Your task to perform on an android device: Toggle the flashlight Image 0: 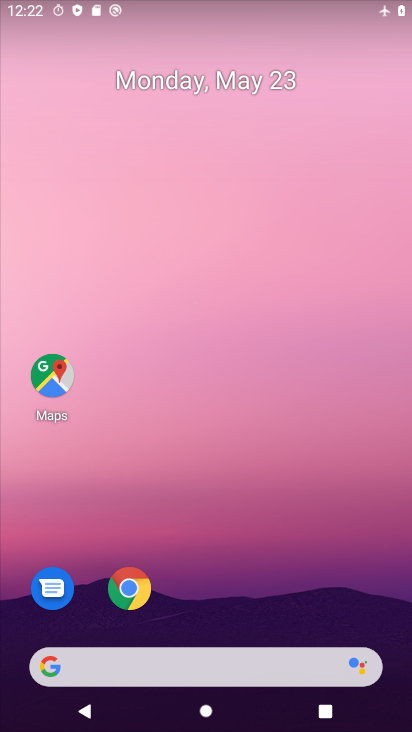
Step 0: drag from (225, 725) to (237, 42)
Your task to perform on an android device: Toggle the flashlight Image 1: 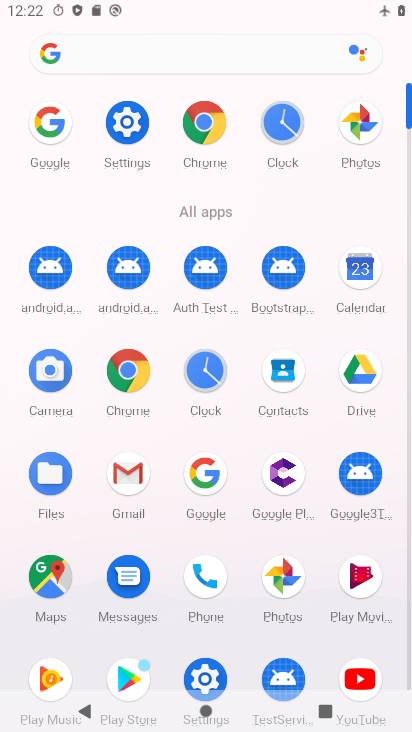
Step 1: click (131, 119)
Your task to perform on an android device: Toggle the flashlight Image 2: 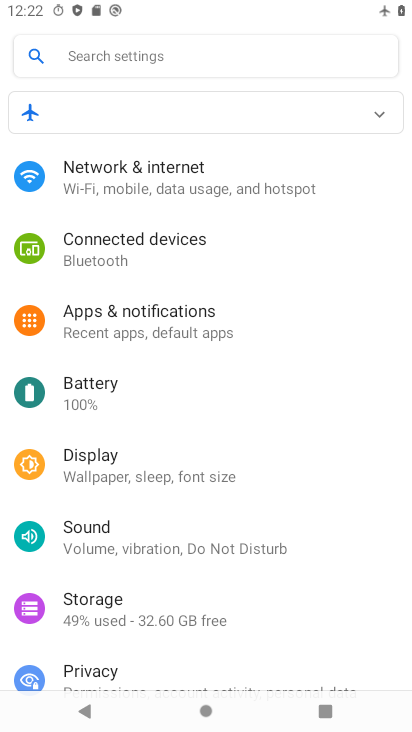
Step 2: task complete